Your task to perform on an android device: Turn off the flashlight Image 0: 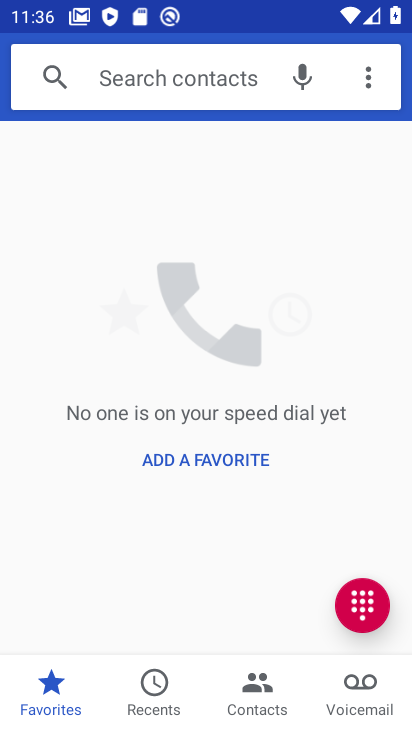
Step 0: press home button
Your task to perform on an android device: Turn off the flashlight Image 1: 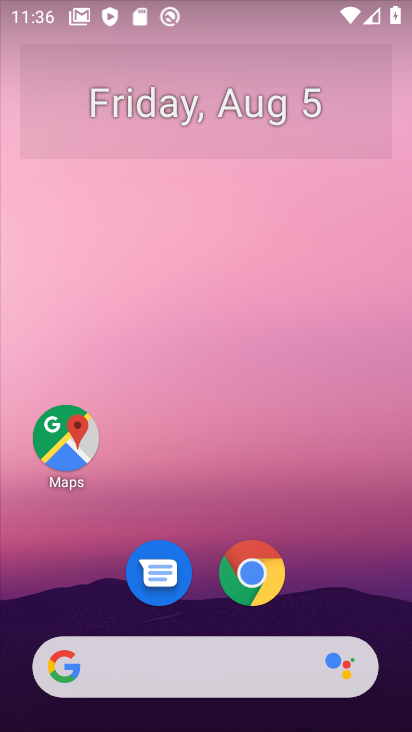
Step 1: task complete